Your task to perform on an android device: check the backup settings in the google photos Image 0: 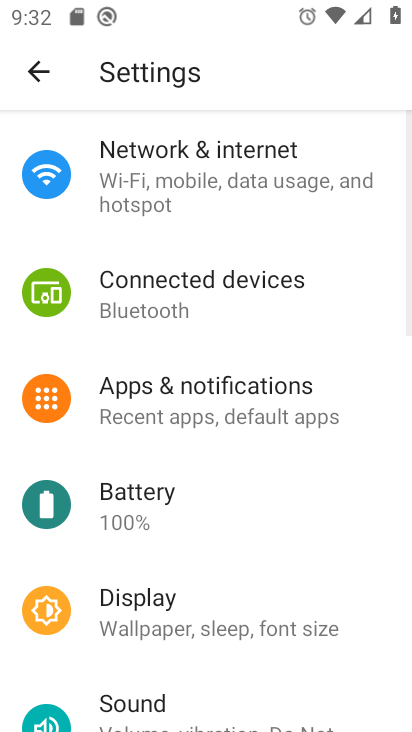
Step 0: press home button
Your task to perform on an android device: check the backup settings in the google photos Image 1: 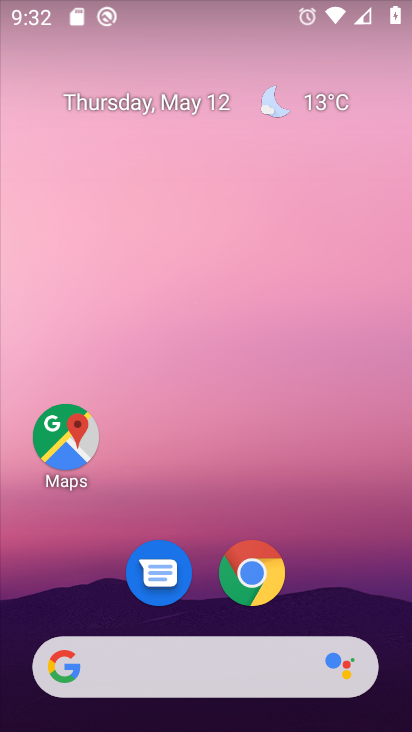
Step 1: drag from (392, 656) to (306, 270)
Your task to perform on an android device: check the backup settings in the google photos Image 2: 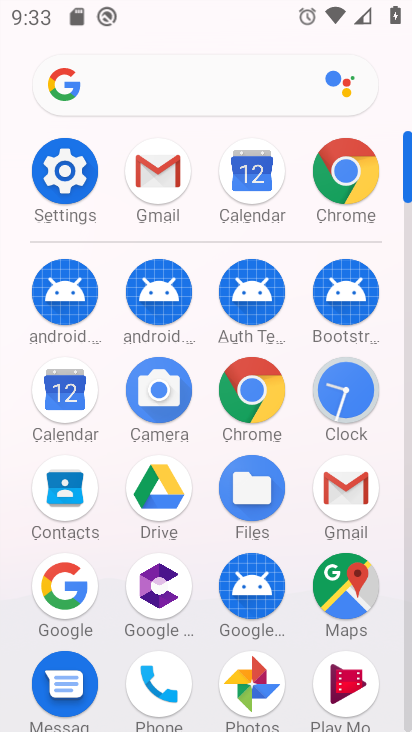
Step 2: click (243, 672)
Your task to perform on an android device: check the backup settings in the google photos Image 3: 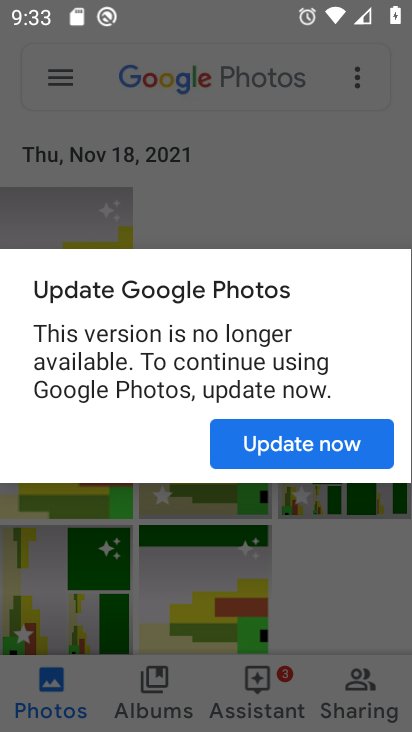
Step 3: click (334, 447)
Your task to perform on an android device: check the backup settings in the google photos Image 4: 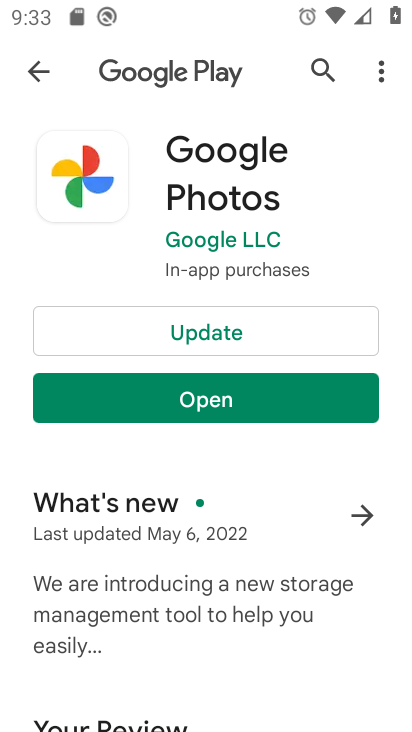
Step 4: click (252, 341)
Your task to perform on an android device: check the backup settings in the google photos Image 5: 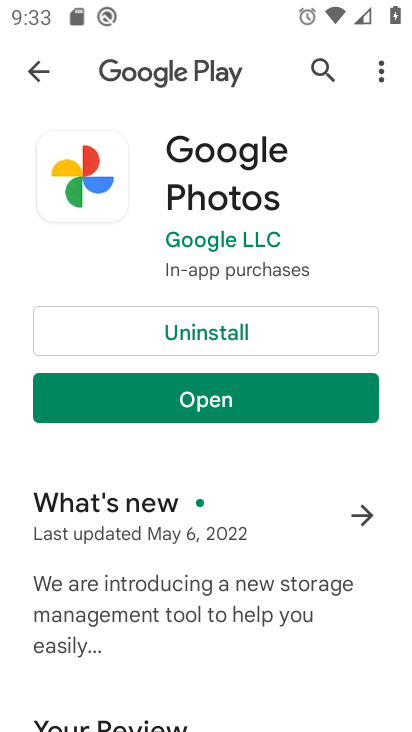
Step 5: click (248, 393)
Your task to perform on an android device: check the backup settings in the google photos Image 6: 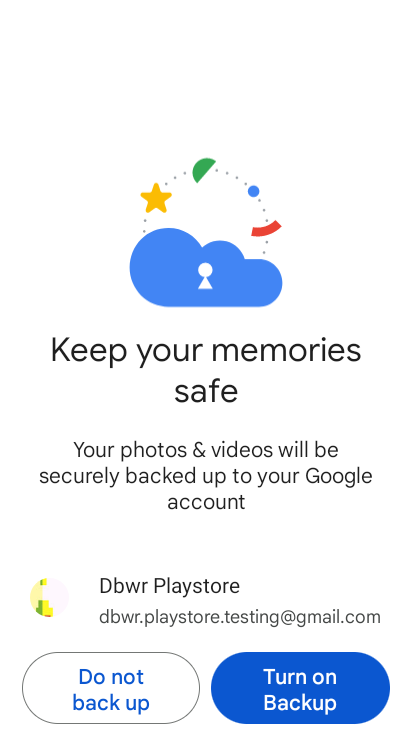
Step 6: click (318, 702)
Your task to perform on an android device: check the backup settings in the google photos Image 7: 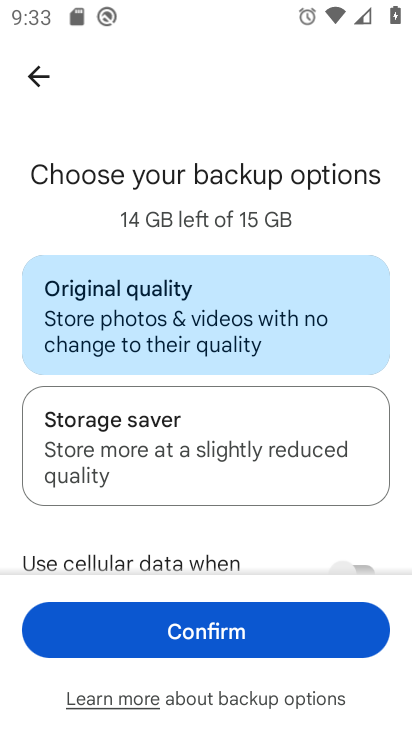
Step 7: click (256, 628)
Your task to perform on an android device: check the backup settings in the google photos Image 8: 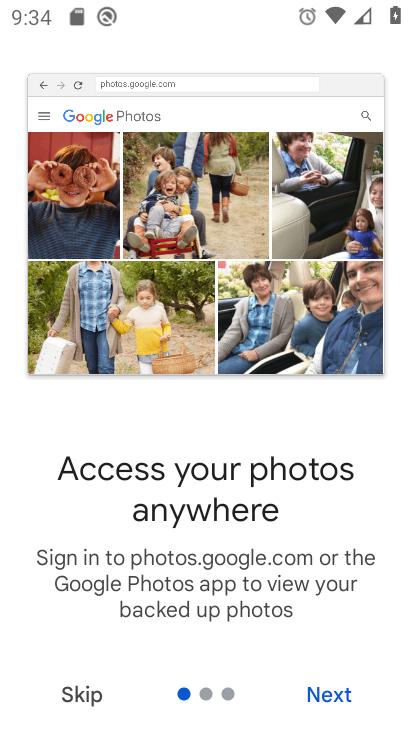
Step 8: click (342, 695)
Your task to perform on an android device: check the backup settings in the google photos Image 9: 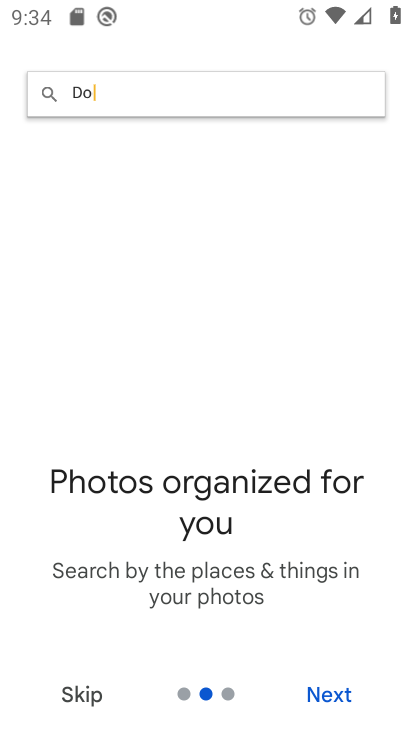
Step 9: click (342, 695)
Your task to perform on an android device: check the backup settings in the google photos Image 10: 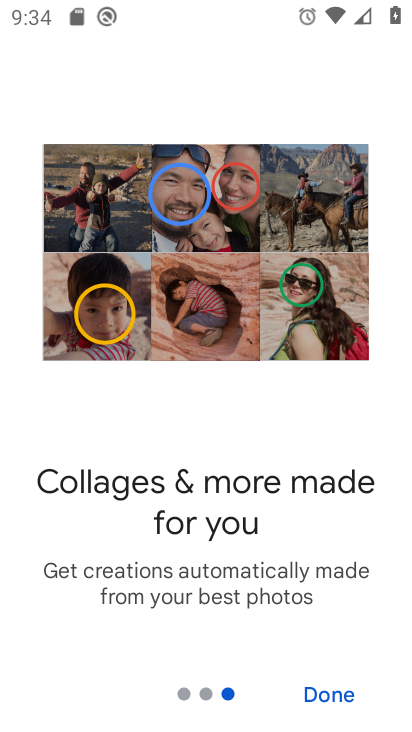
Step 10: click (342, 688)
Your task to perform on an android device: check the backup settings in the google photos Image 11: 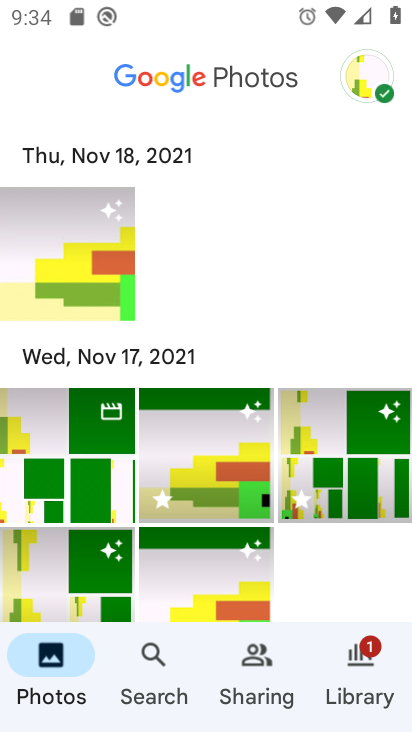
Step 11: click (363, 79)
Your task to perform on an android device: check the backup settings in the google photos Image 12: 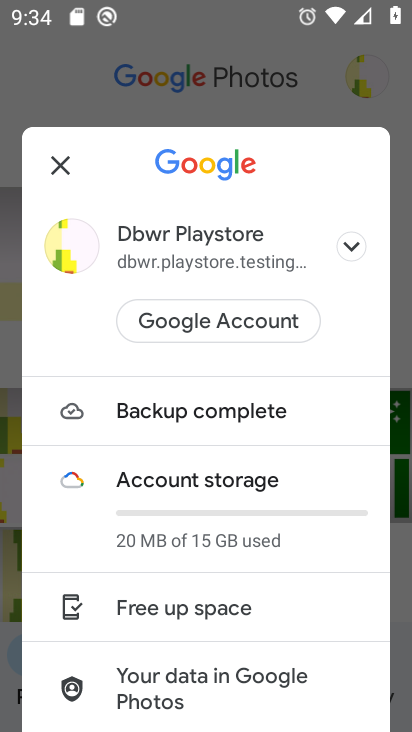
Step 12: click (191, 413)
Your task to perform on an android device: check the backup settings in the google photos Image 13: 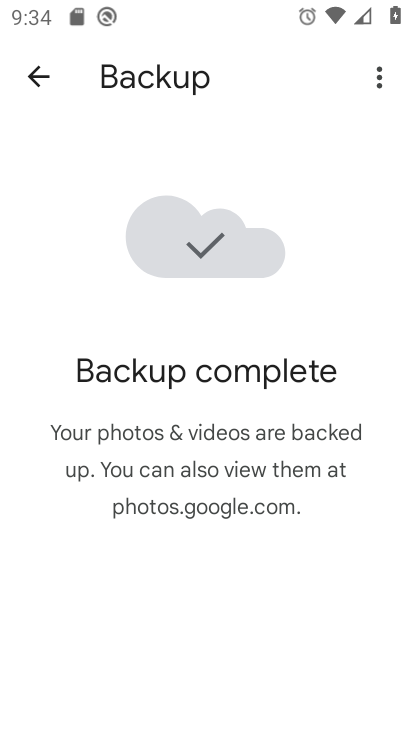
Step 13: task complete